Your task to perform on an android device: Go to calendar. Show me events next week Image 0: 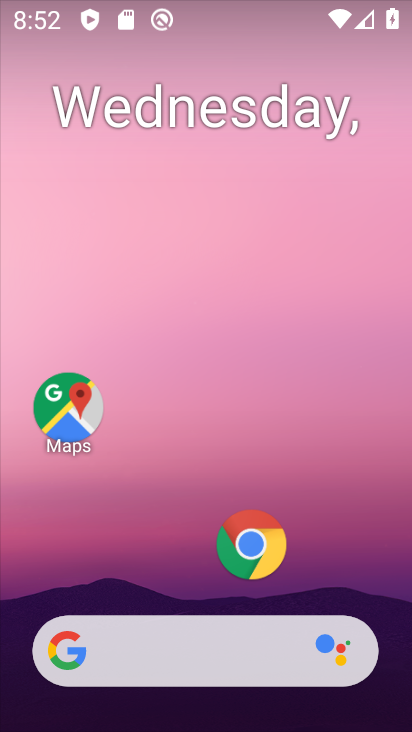
Step 0: drag from (204, 601) to (132, 84)
Your task to perform on an android device: Go to calendar. Show me events next week Image 1: 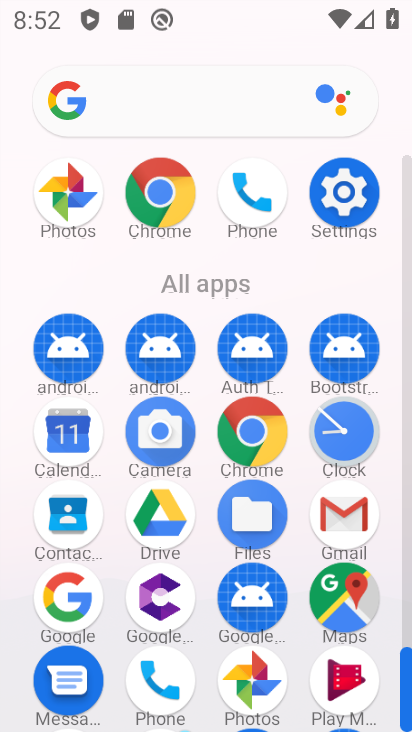
Step 1: click (43, 414)
Your task to perform on an android device: Go to calendar. Show me events next week Image 2: 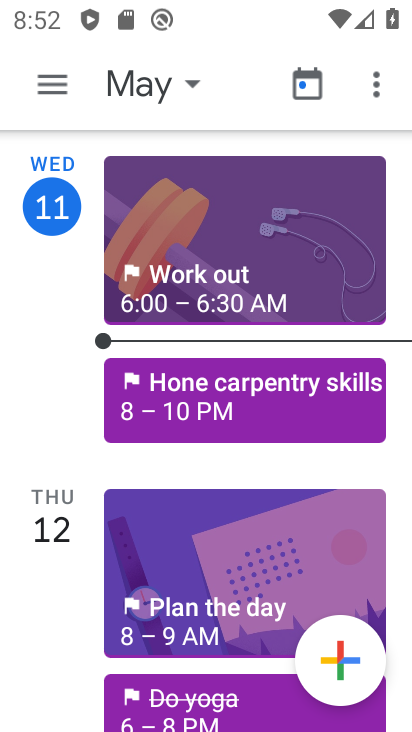
Step 2: click (46, 90)
Your task to perform on an android device: Go to calendar. Show me events next week Image 3: 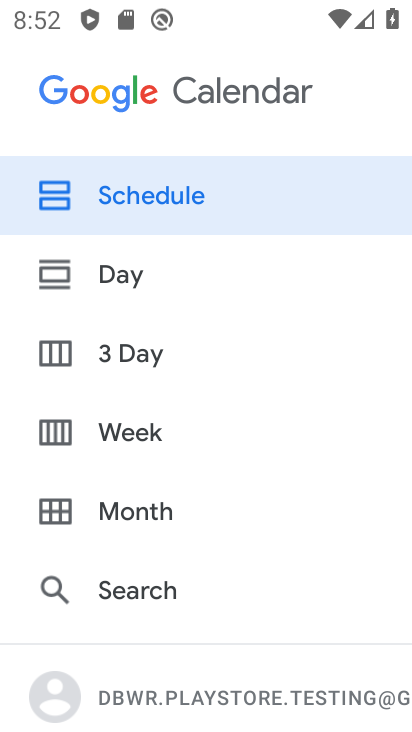
Step 3: click (157, 431)
Your task to perform on an android device: Go to calendar. Show me events next week Image 4: 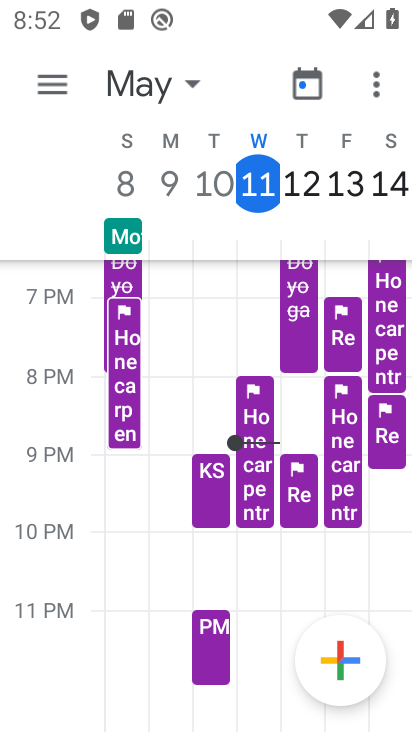
Step 4: task complete